Your task to perform on an android device: open a new tab in the chrome app Image 0: 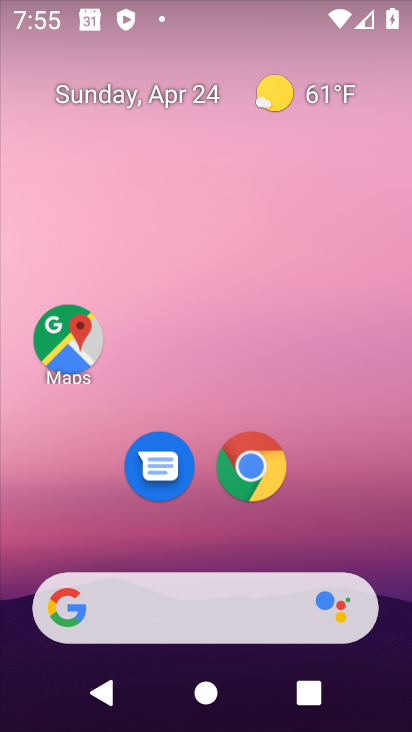
Step 0: click (263, 458)
Your task to perform on an android device: open a new tab in the chrome app Image 1: 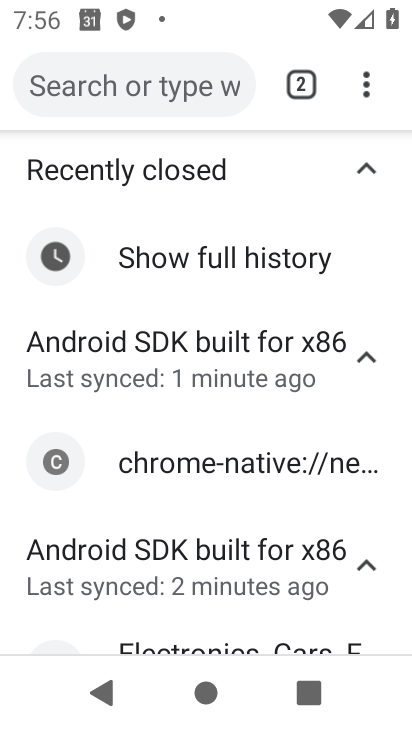
Step 1: click (365, 94)
Your task to perform on an android device: open a new tab in the chrome app Image 2: 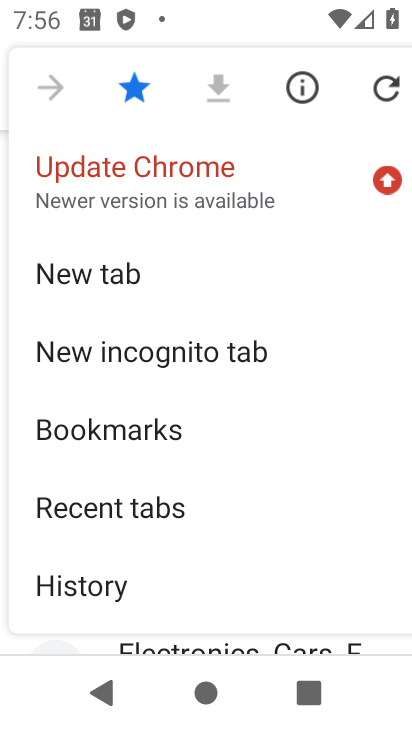
Step 2: click (112, 270)
Your task to perform on an android device: open a new tab in the chrome app Image 3: 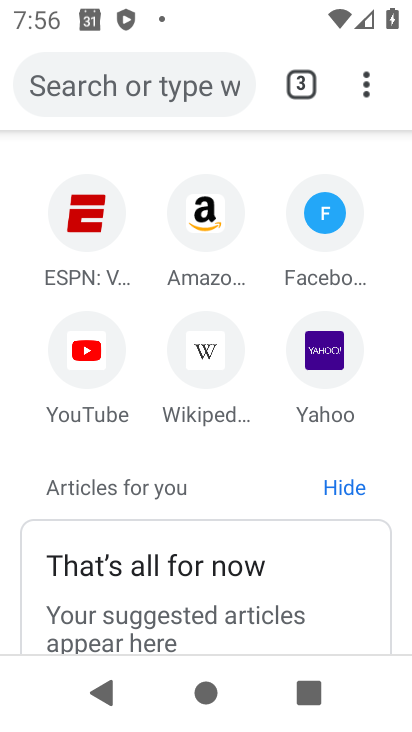
Step 3: task complete